Your task to perform on an android device: Open the calendar app, open the side menu, and click the "Day" option Image 0: 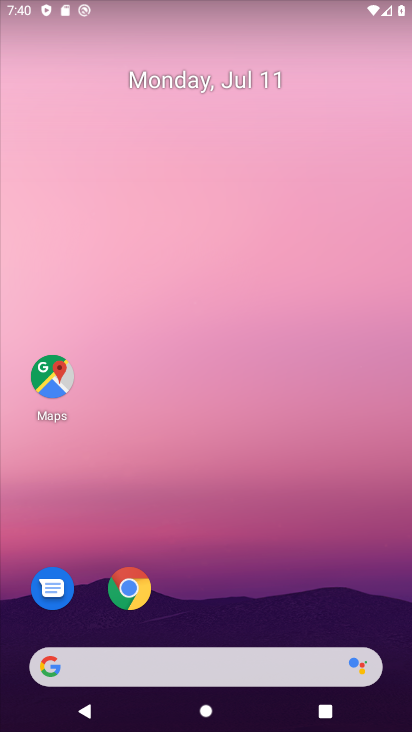
Step 0: drag from (251, 705) to (288, 43)
Your task to perform on an android device: Open the calendar app, open the side menu, and click the "Day" option Image 1: 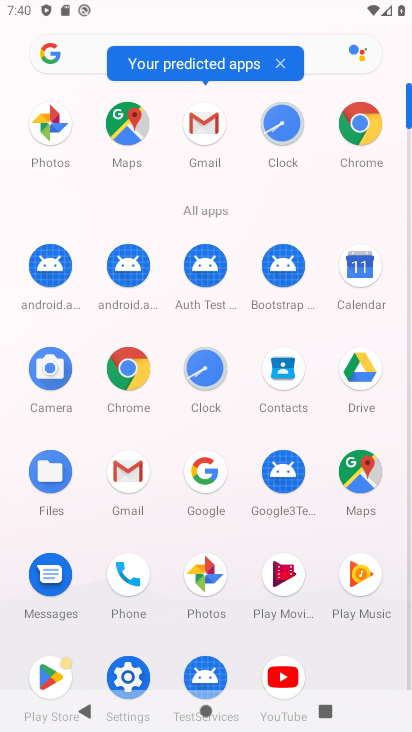
Step 1: click (363, 277)
Your task to perform on an android device: Open the calendar app, open the side menu, and click the "Day" option Image 2: 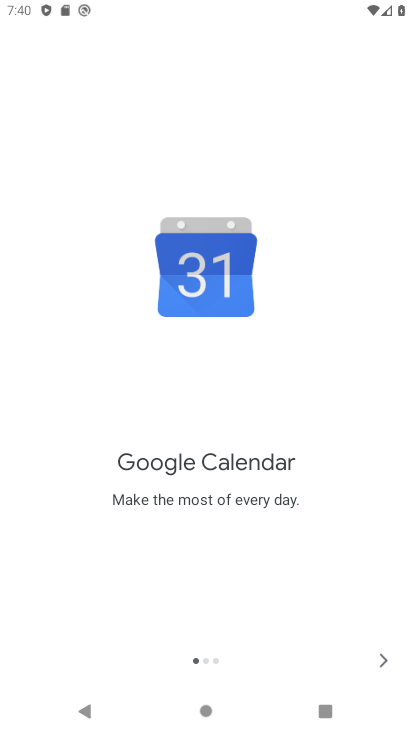
Step 2: click (385, 654)
Your task to perform on an android device: Open the calendar app, open the side menu, and click the "Day" option Image 3: 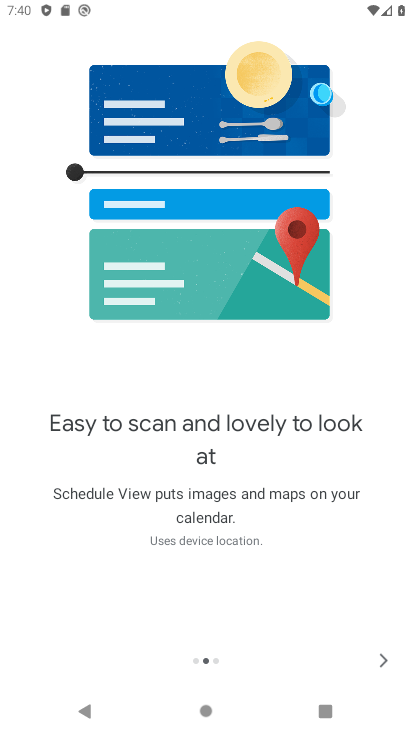
Step 3: click (385, 654)
Your task to perform on an android device: Open the calendar app, open the side menu, and click the "Day" option Image 4: 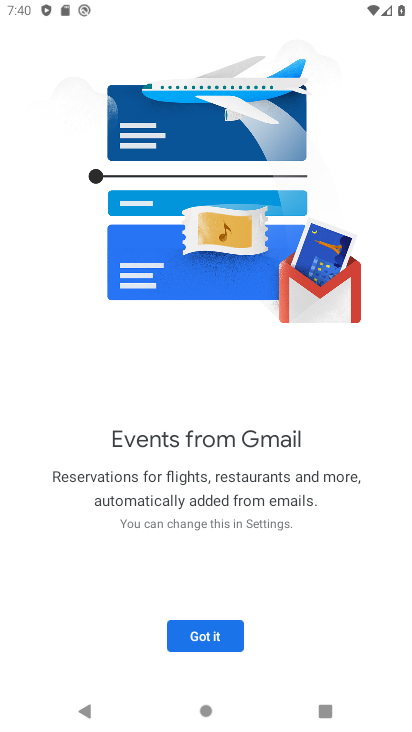
Step 4: click (195, 638)
Your task to perform on an android device: Open the calendar app, open the side menu, and click the "Day" option Image 5: 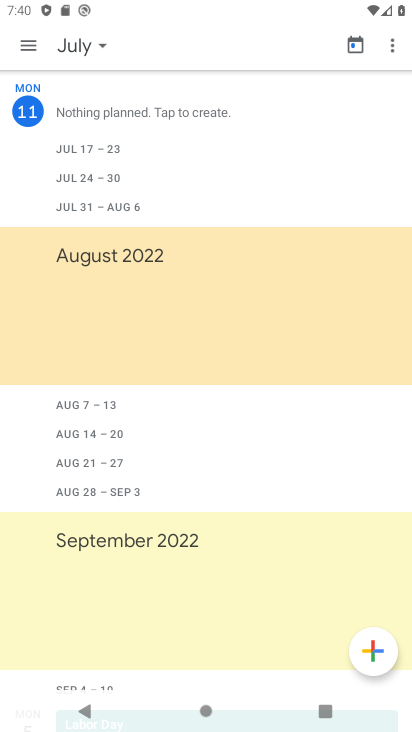
Step 5: click (30, 36)
Your task to perform on an android device: Open the calendar app, open the side menu, and click the "Day" option Image 6: 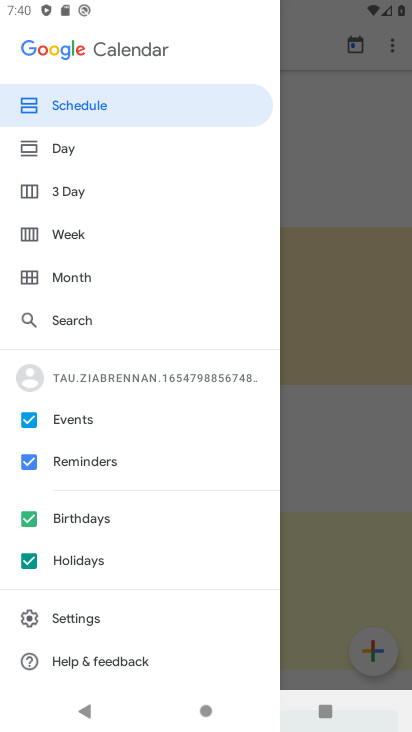
Step 6: click (55, 147)
Your task to perform on an android device: Open the calendar app, open the side menu, and click the "Day" option Image 7: 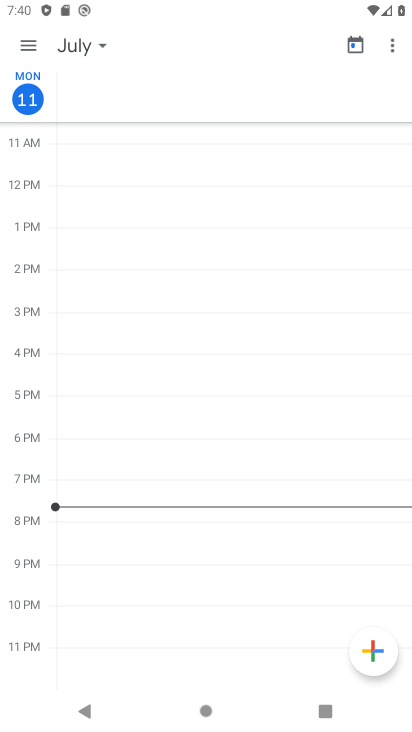
Step 7: task complete